Your task to perform on an android device: see creations saved in the google photos Image 0: 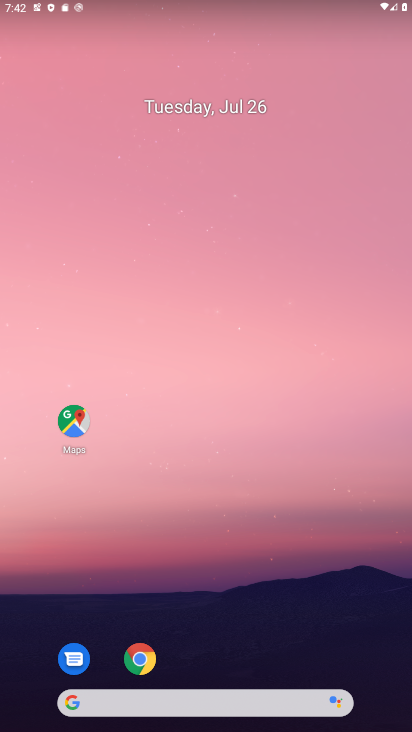
Step 0: drag from (207, 670) to (142, 74)
Your task to perform on an android device: see creations saved in the google photos Image 1: 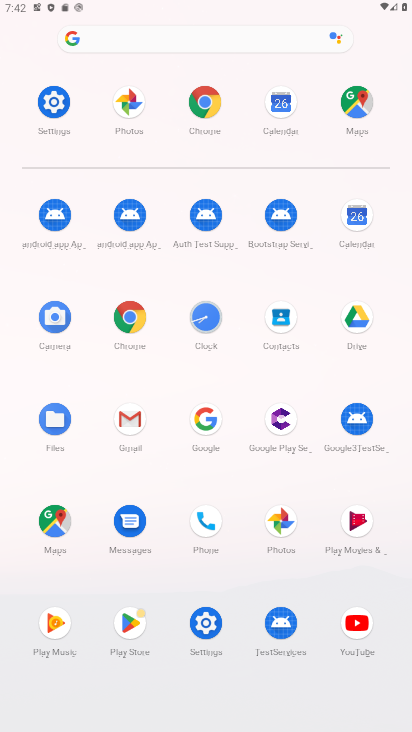
Step 1: click (286, 527)
Your task to perform on an android device: see creations saved in the google photos Image 2: 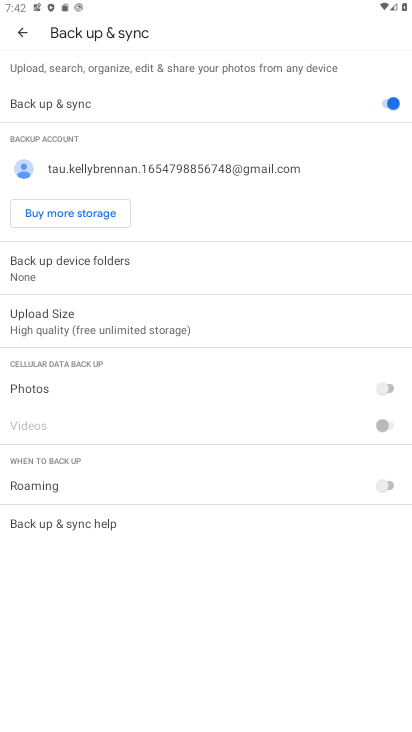
Step 2: click (22, 26)
Your task to perform on an android device: see creations saved in the google photos Image 3: 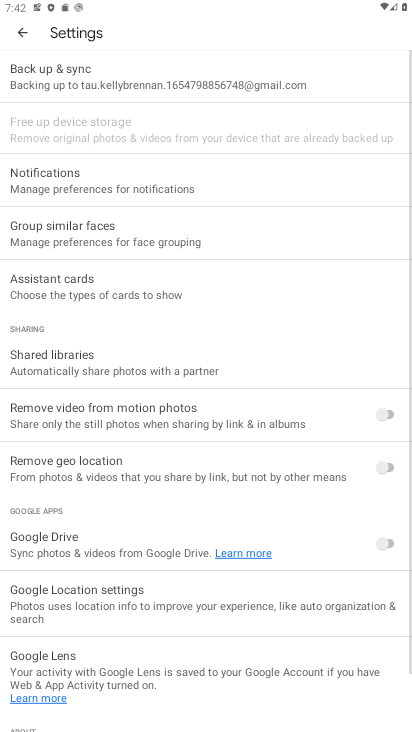
Step 3: click (22, 26)
Your task to perform on an android device: see creations saved in the google photos Image 4: 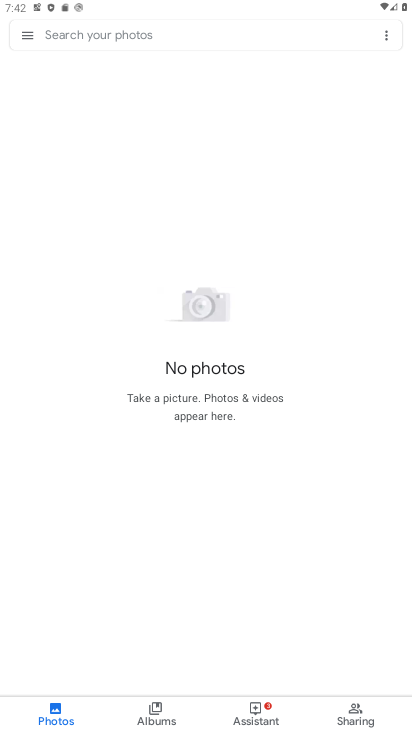
Step 4: click (105, 29)
Your task to perform on an android device: see creations saved in the google photos Image 5: 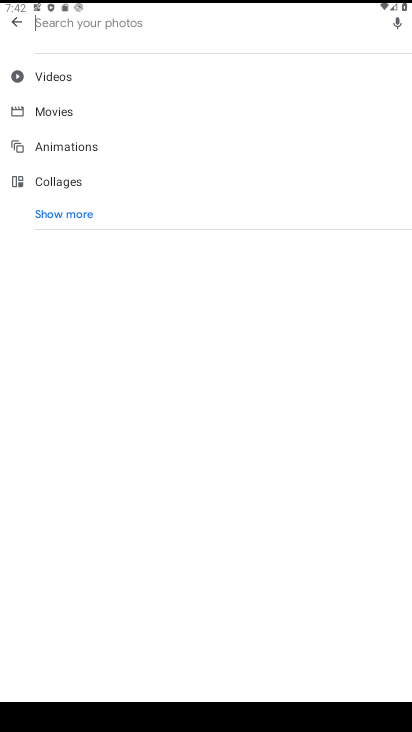
Step 5: click (54, 212)
Your task to perform on an android device: see creations saved in the google photos Image 6: 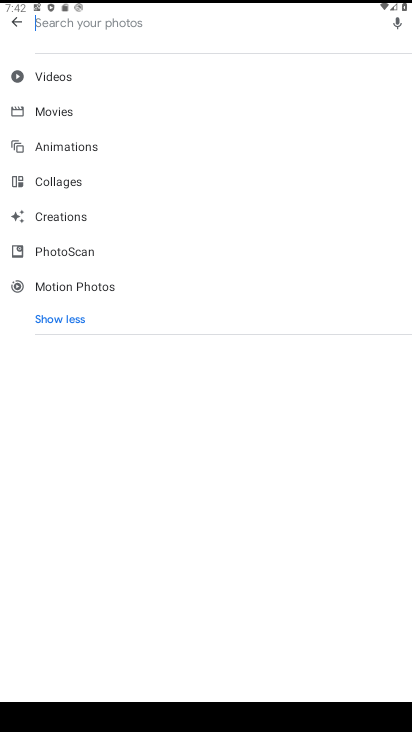
Step 6: click (59, 220)
Your task to perform on an android device: see creations saved in the google photos Image 7: 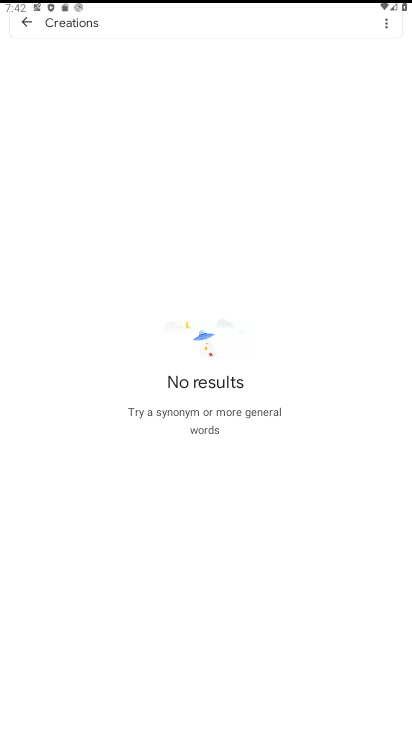
Step 7: task complete